Your task to perform on an android device: turn on airplane mode Image 0: 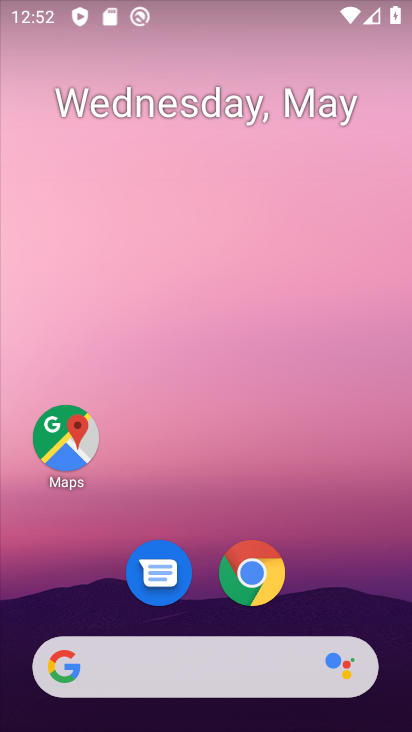
Step 0: drag from (98, 504) to (186, 205)
Your task to perform on an android device: turn on airplane mode Image 1: 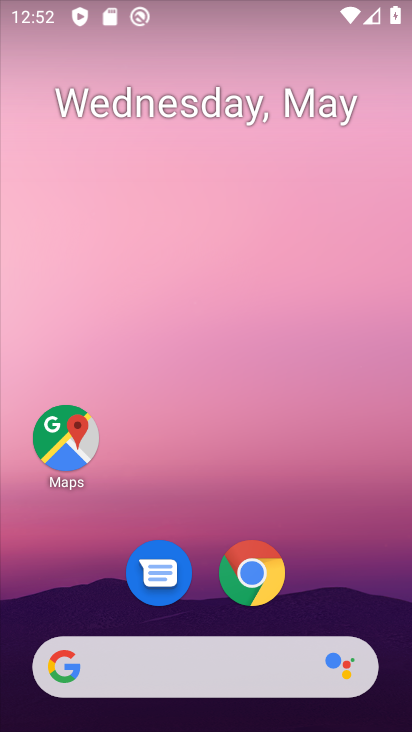
Step 1: drag from (66, 625) to (192, 232)
Your task to perform on an android device: turn on airplane mode Image 2: 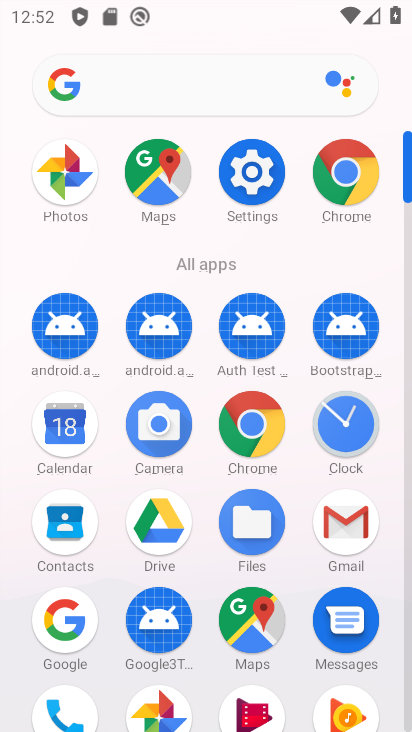
Step 2: drag from (118, 647) to (235, 347)
Your task to perform on an android device: turn on airplane mode Image 3: 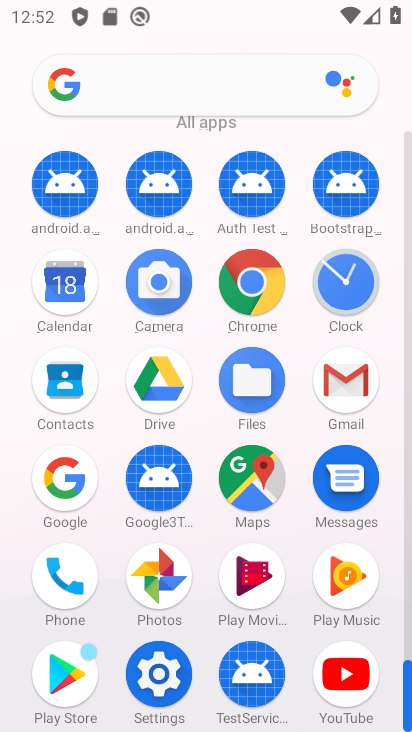
Step 3: click (157, 680)
Your task to perform on an android device: turn on airplane mode Image 4: 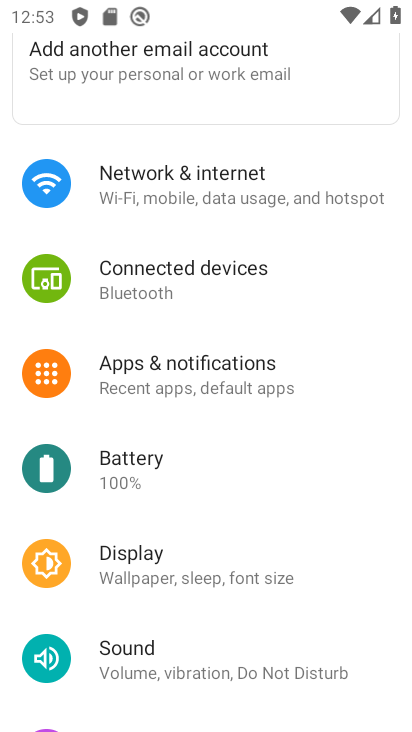
Step 4: click (225, 210)
Your task to perform on an android device: turn on airplane mode Image 5: 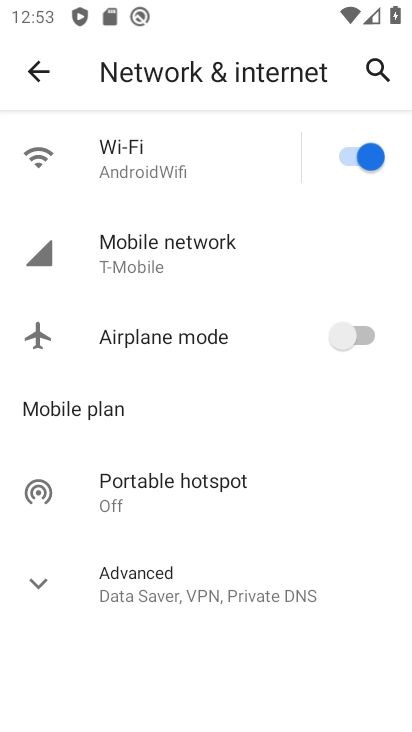
Step 5: click (385, 334)
Your task to perform on an android device: turn on airplane mode Image 6: 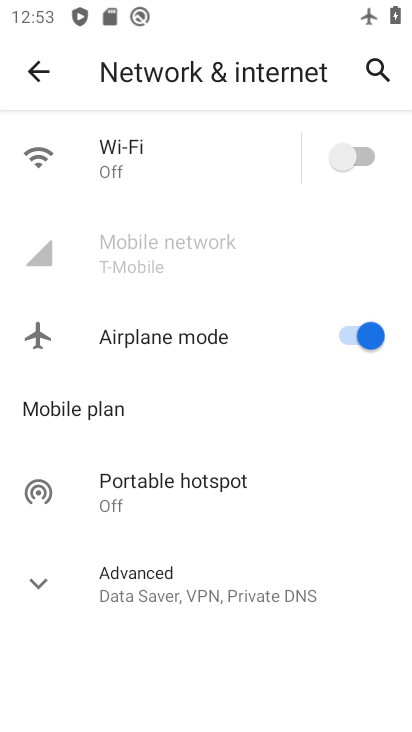
Step 6: task complete